Your task to perform on an android device: turn notification dots on Image 0: 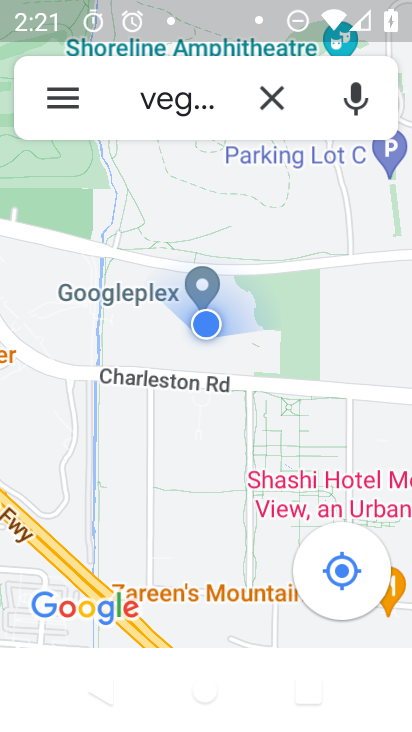
Step 0: press home button
Your task to perform on an android device: turn notification dots on Image 1: 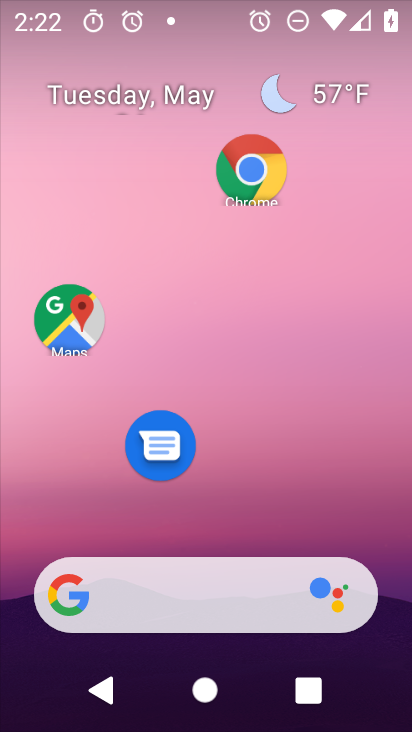
Step 1: drag from (238, 713) to (227, 138)
Your task to perform on an android device: turn notification dots on Image 2: 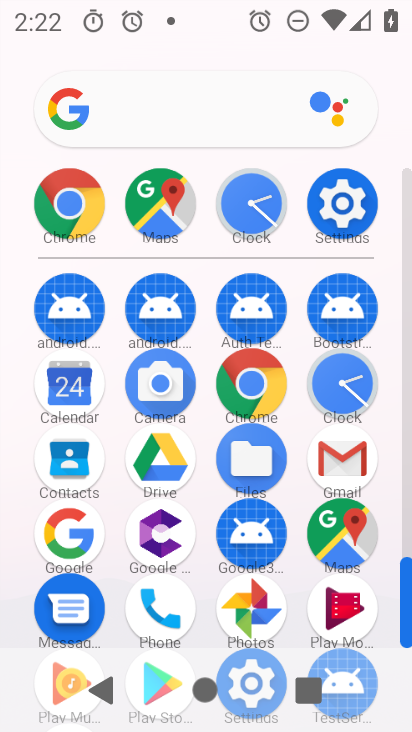
Step 2: click (340, 208)
Your task to perform on an android device: turn notification dots on Image 3: 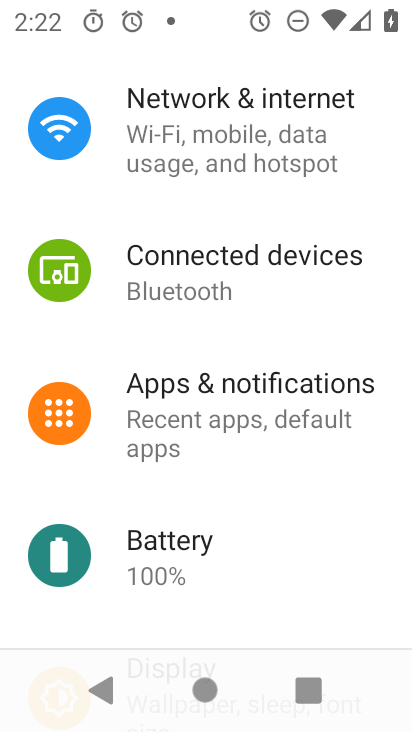
Step 3: click (248, 403)
Your task to perform on an android device: turn notification dots on Image 4: 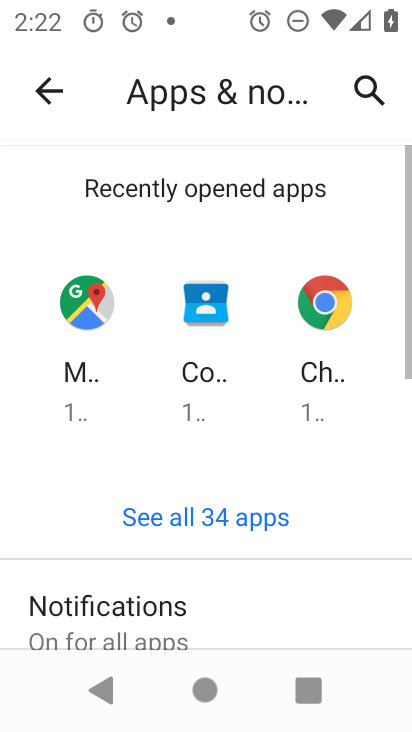
Step 4: drag from (215, 613) to (221, 290)
Your task to perform on an android device: turn notification dots on Image 5: 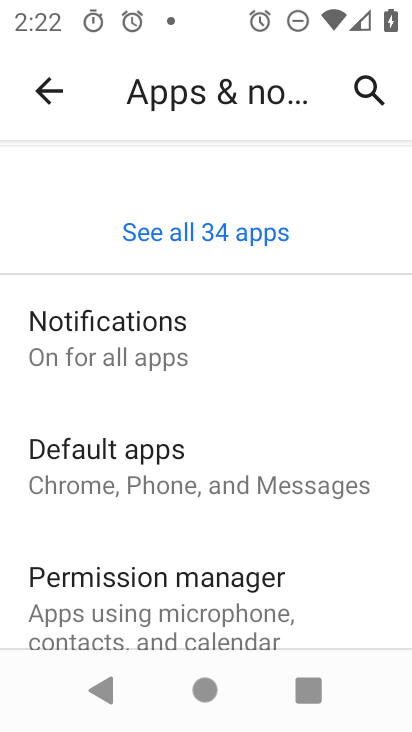
Step 5: click (108, 355)
Your task to perform on an android device: turn notification dots on Image 6: 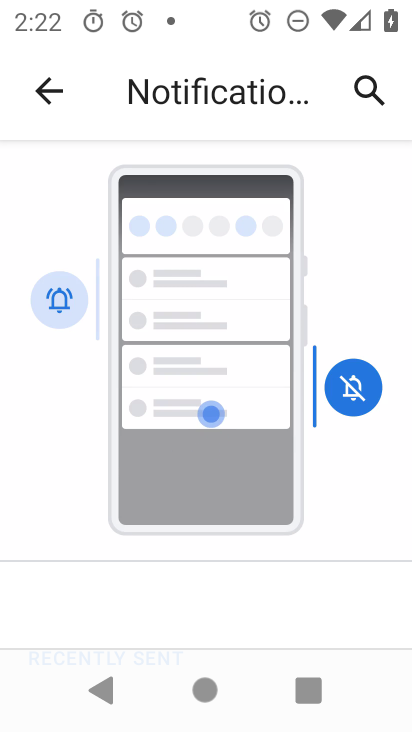
Step 6: drag from (206, 612) to (208, 300)
Your task to perform on an android device: turn notification dots on Image 7: 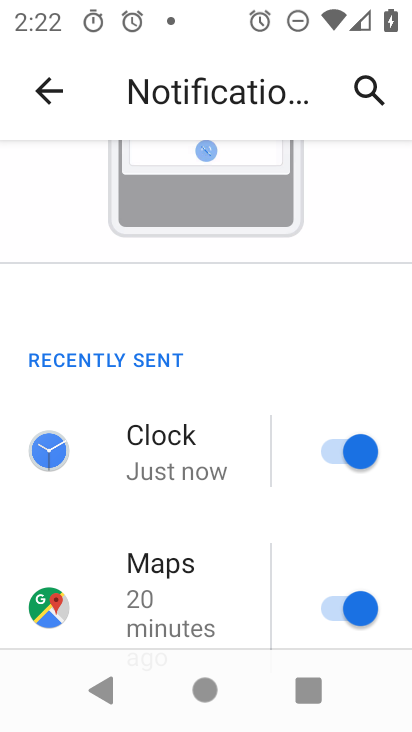
Step 7: drag from (234, 622) to (227, 301)
Your task to perform on an android device: turn notification dots on Image 8: 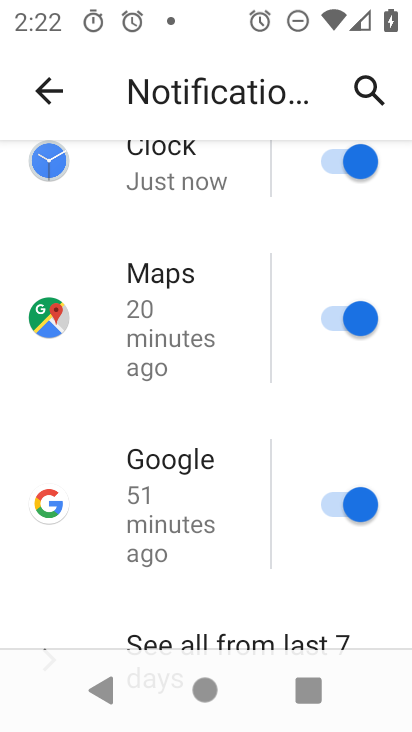
Step 8: drag from (242, 618) to (240, 275)
Your task to perform on an android device: turn notification dots on Image 9: 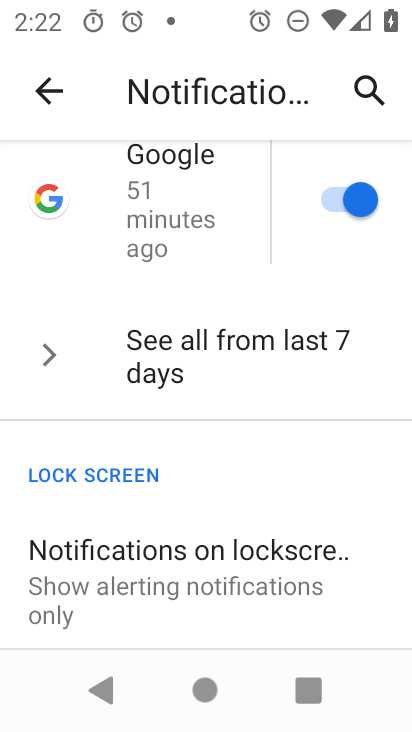
Step 9: drag from (261, 565) to (255, 268)
Your task to perform on an android device: turn notification dots on Image 10: 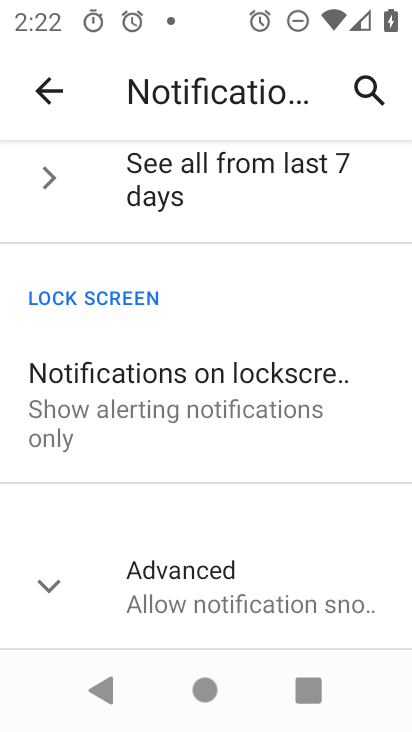
Step 10: click (229, 587)
Your task to perform on an android device: turn notification dots on Image 11: 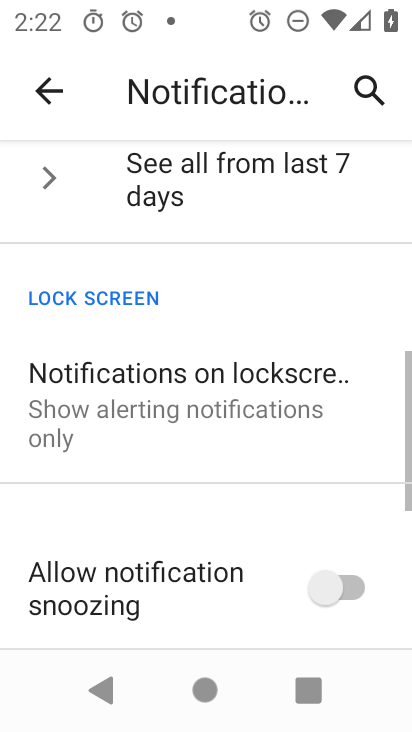
Step 11: task complete